Your task to perform on an android device: turn off priority inbox in the gmail app Image 0: 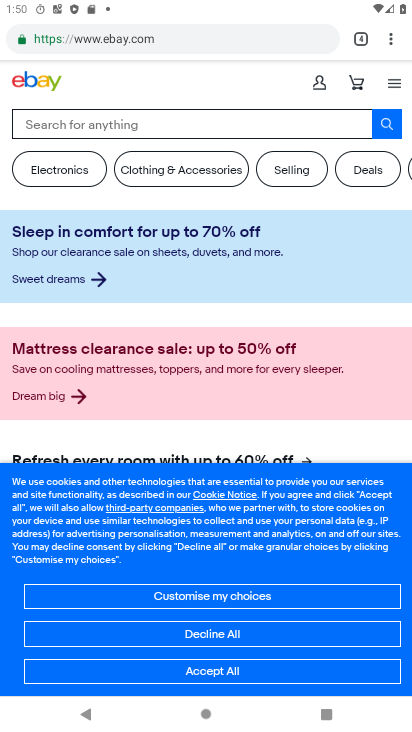
Step 0: press home button
Your task to perform on an android device: turn off priority inbox in the gmail app Image 1: 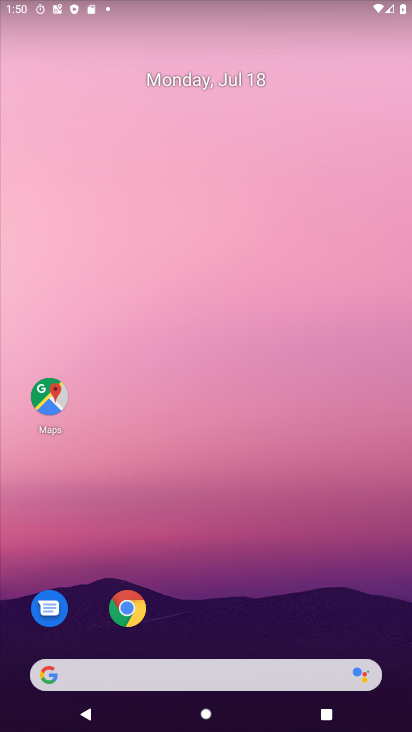
Step 1: drag from (240, 716) to (349, 0)
Your task to perform on an android device: turn off priority inbox in the gmail app Image 2: 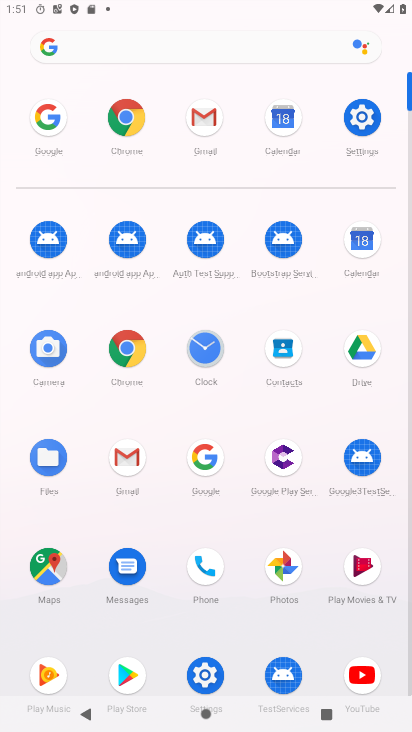
Step 2: click (128, 459)
Your task to perform on an android device: turn off priority inbox in the gmail app Image 3: 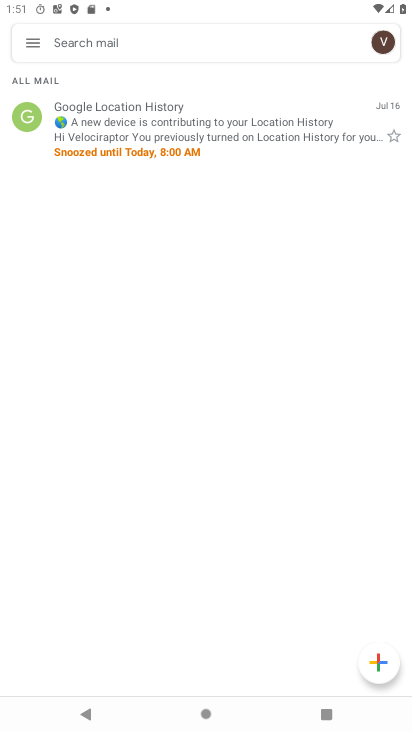
Step 3: click (32, 39)
Your task to perform on an android device: turn off priority inbox in the gmail app Image 4: 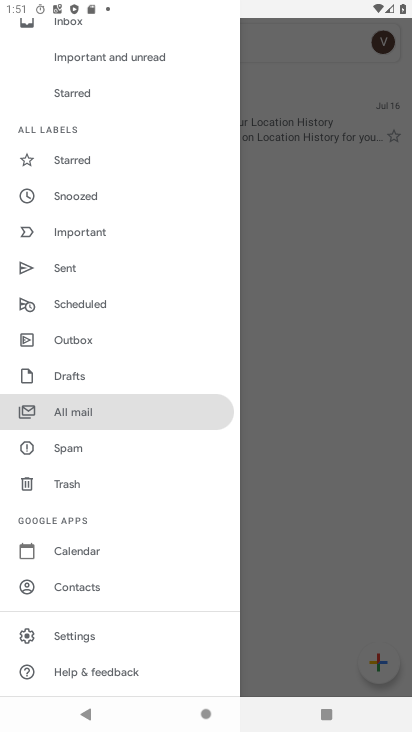
Step 4: click (71, 634)
Your task to perform on an android device: turn off priority inbox in the gmail app Image 5: 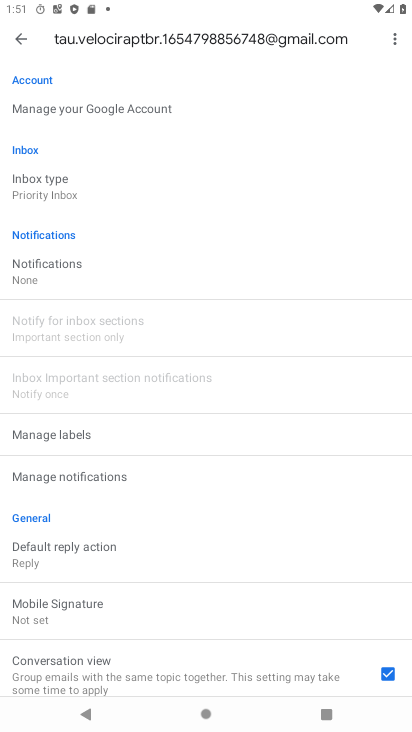
Step 5: click (44, 181)
Your task to perform on an android device: turn off priority inbox in the gmail app Image 6: 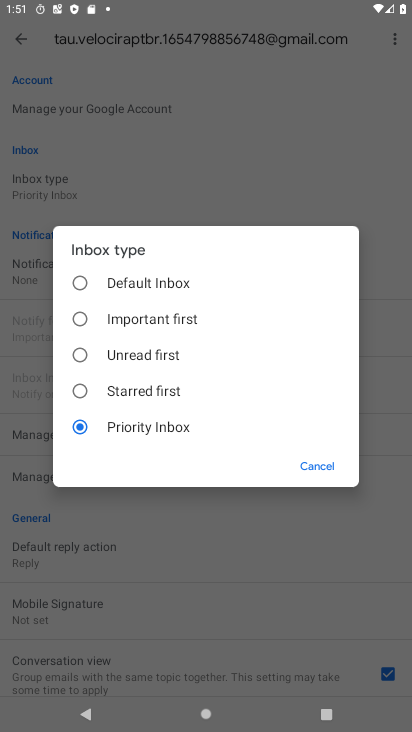
Step 6: click (78, 278)
Your task to perform on an android device: turn off priority inbox in the gmail app Image 7: 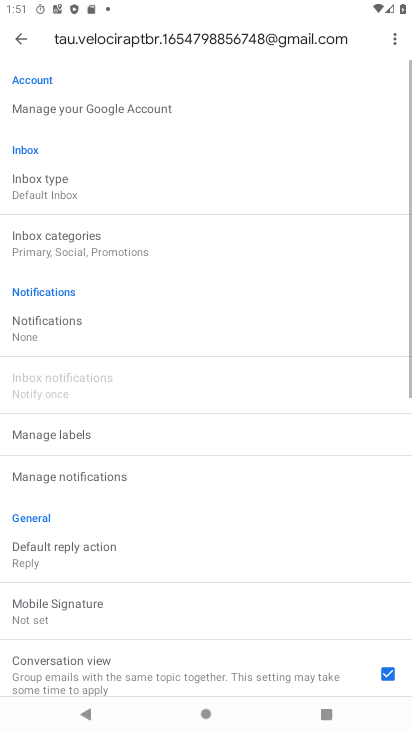
Step 7: task complete